Your task to perform on an android device: clear all cookies in the chrome app Image 0: 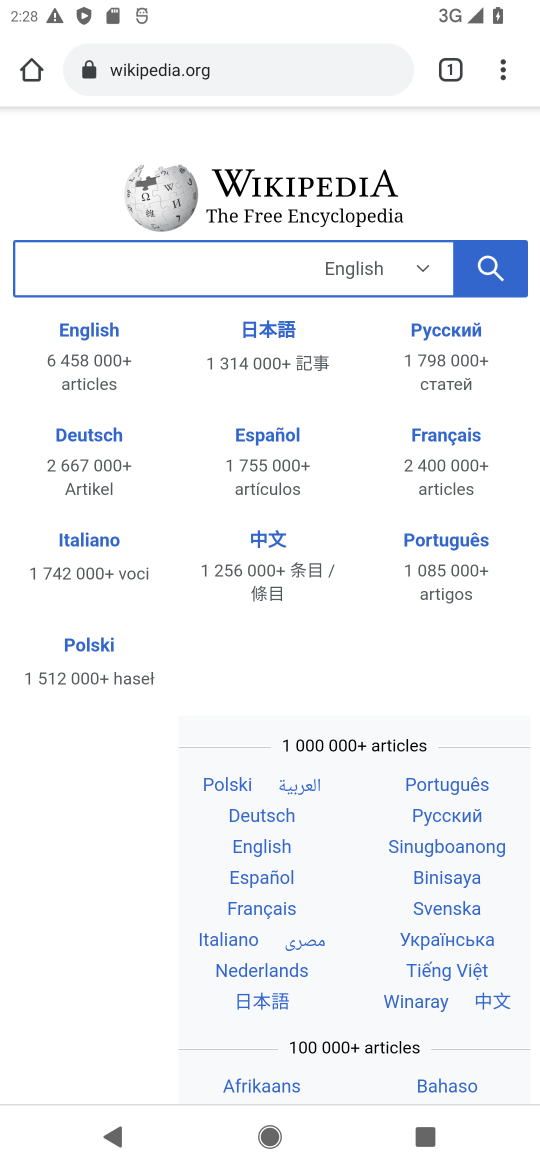
Step 0: task complete